Your task to perform on an android device: check android version Image 0: 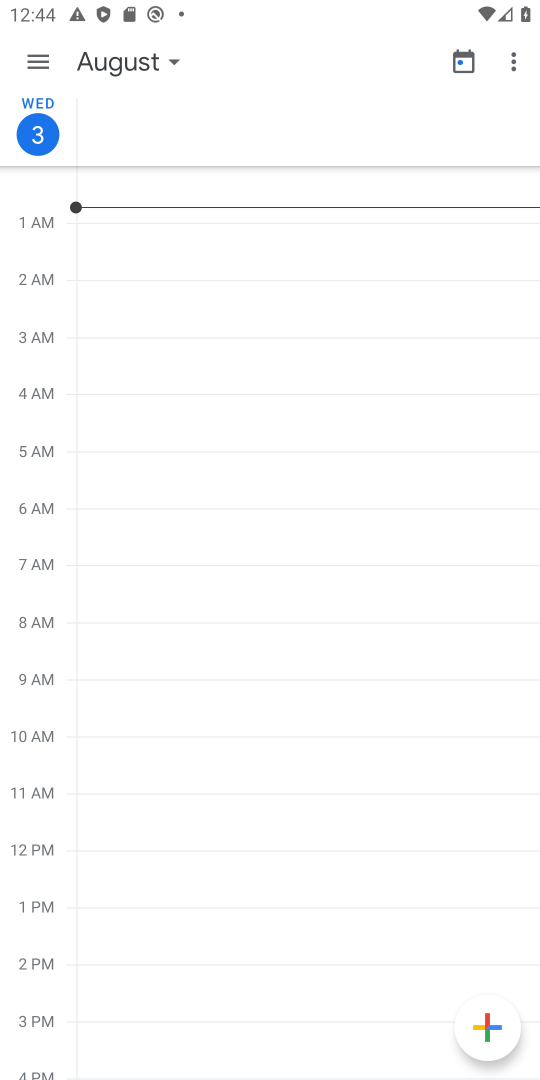
Step 0: press home button
Your task to perform on an android device: check android version Image 1: 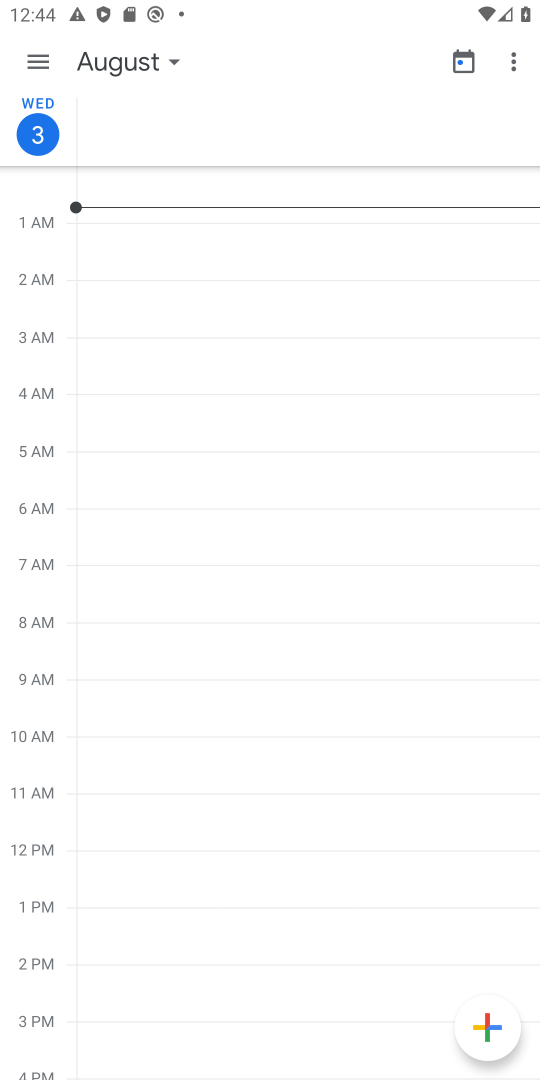
Step 1: press home button
Your task to perform on an android device: check android version Image 2: 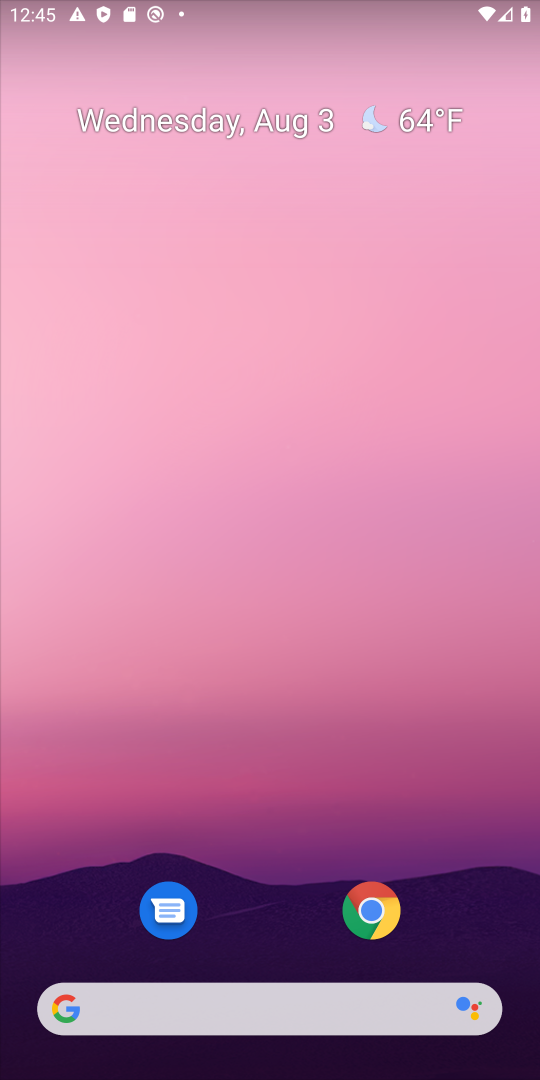
Step 2: drag from (431, 877) to (525, 0)
Your task to perform on an android device: check android version Image 3: 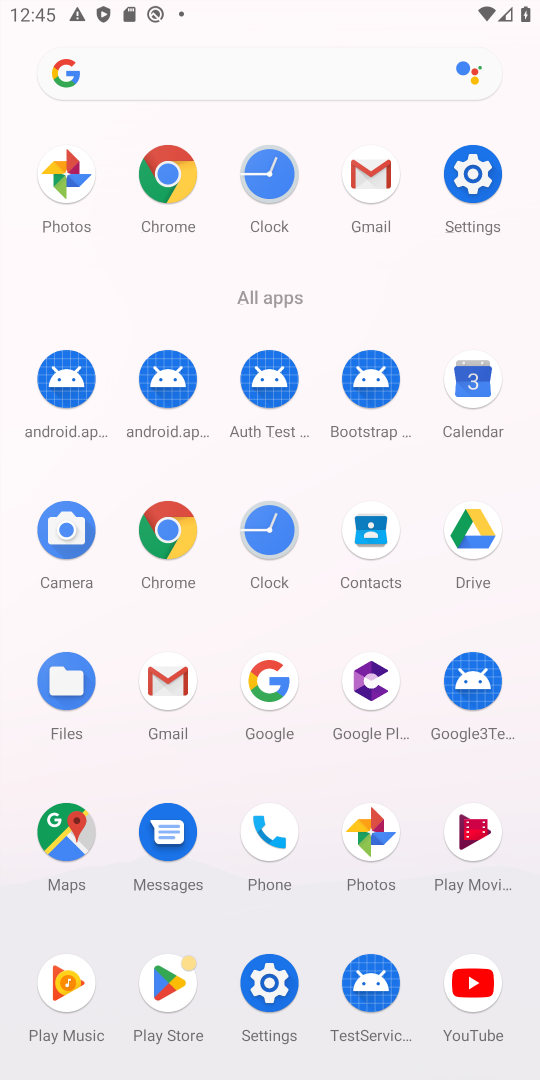
Step 3: click (483, 175)
Your task to perform on an android device: check android version Image 4: 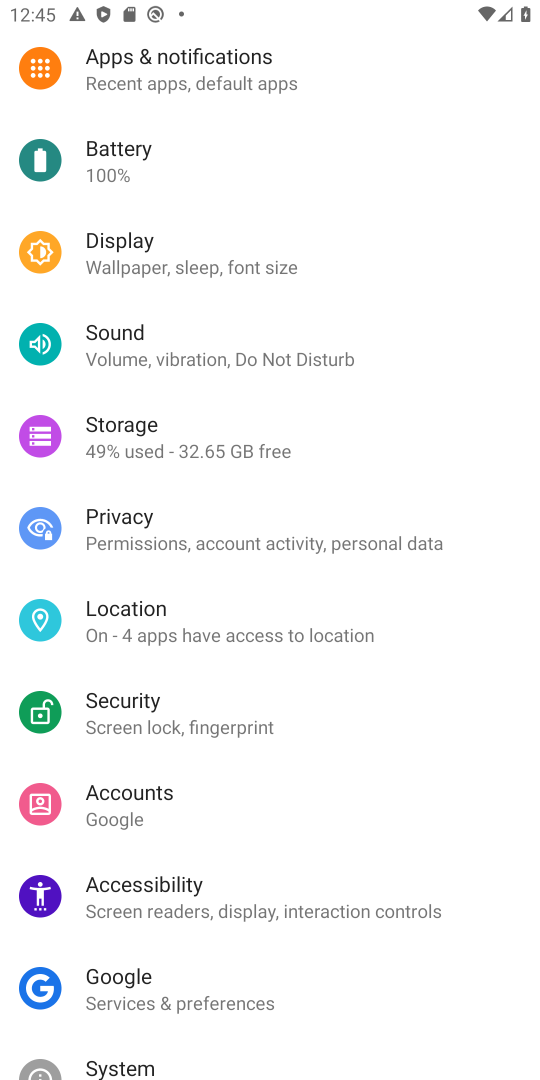
Step 4: drag from (236, 1063) to (333, 121)
Your task to perform on an android device: check android version Image 5: 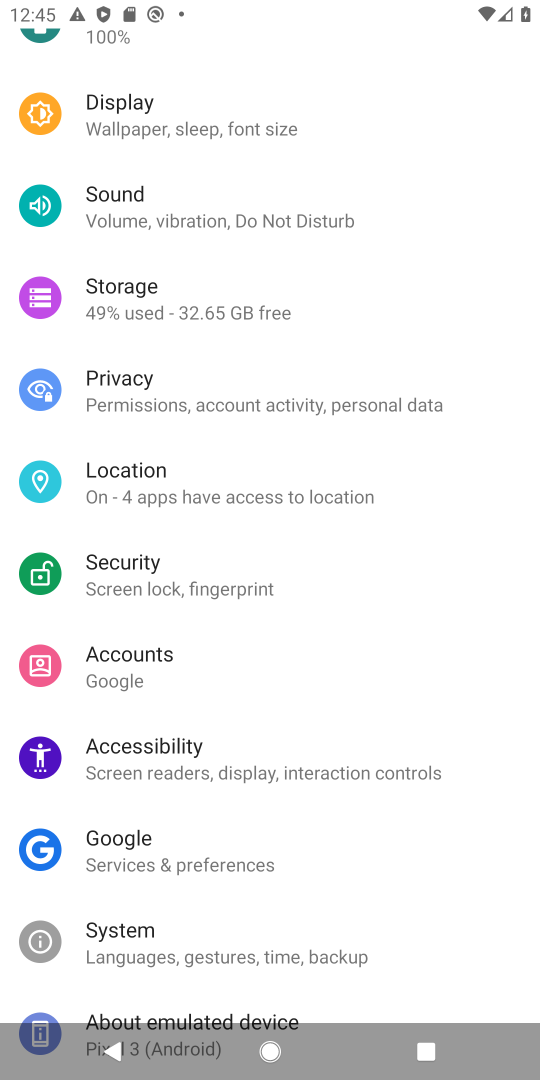
Step 5: click (272, 1015)
Your task to perform on an android device: check android version Image 6: 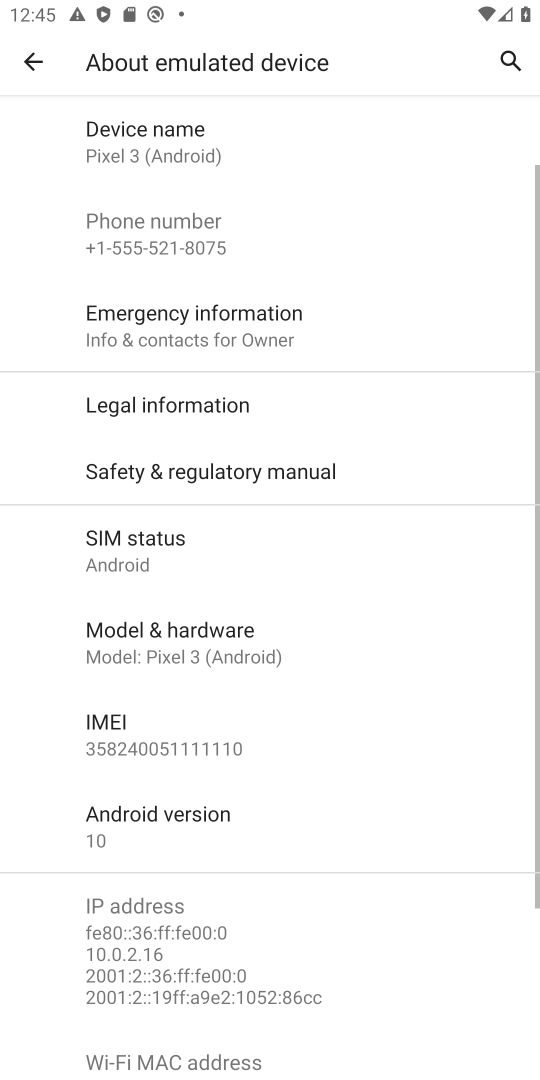
Step 6: click (174, 827)
Your task to perform on an android device: check android version Image 7: 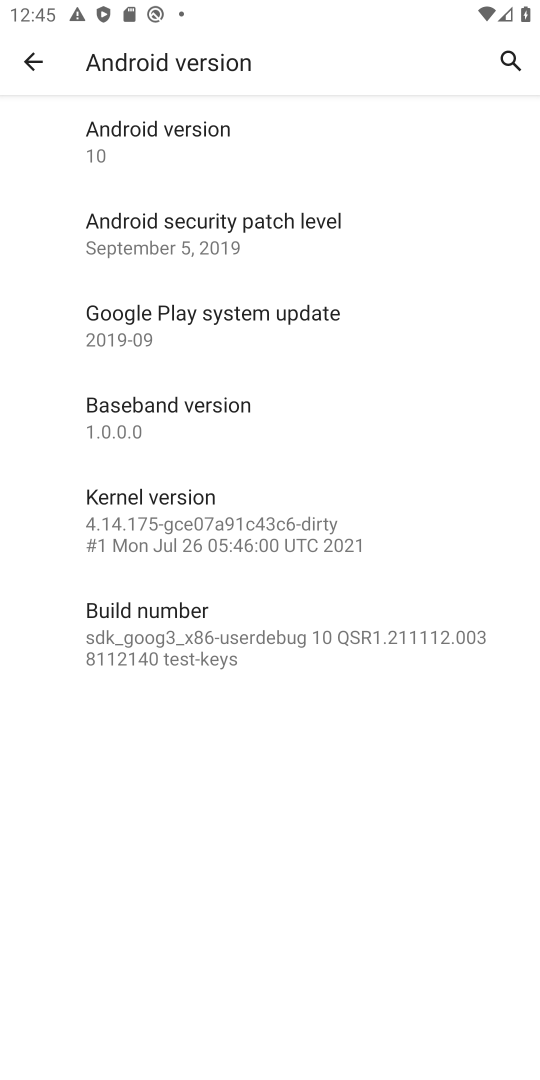
Step 7: task complete